Your task to perform on an android device: install app "Google Maps" Image 0: 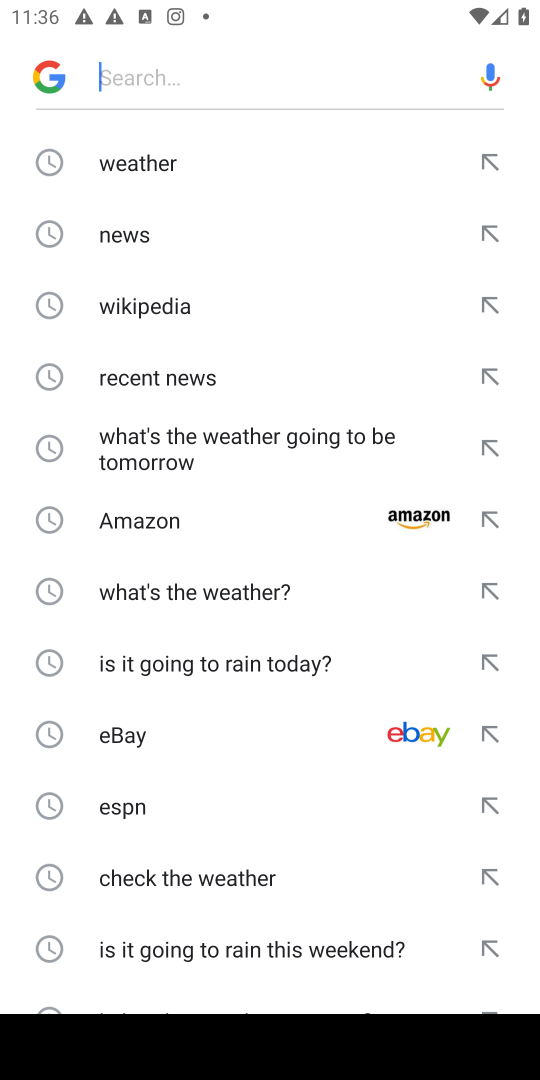
Step 0: press home button
Your task to perform on an android device: install app "Google Maps" Image 1: 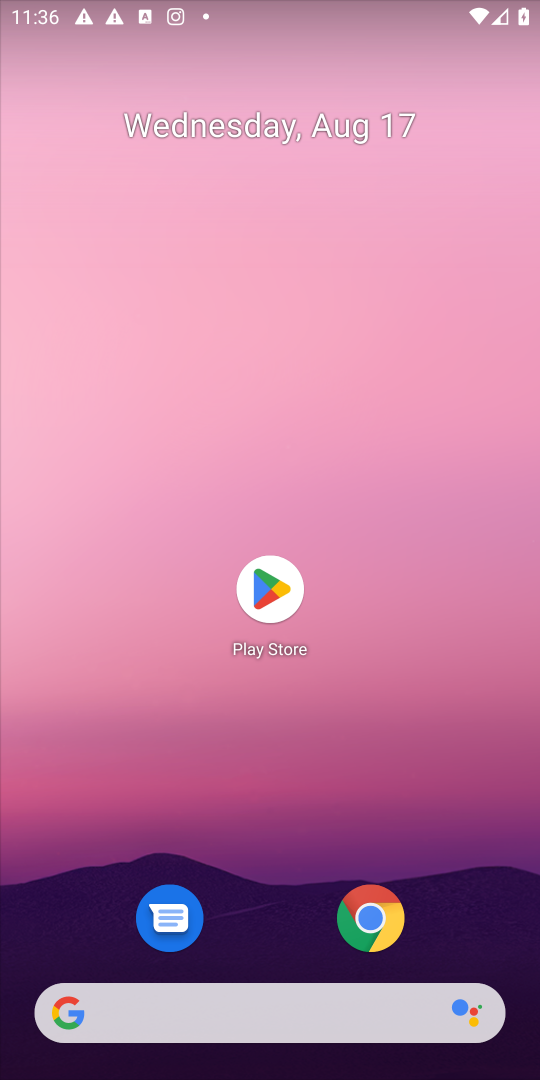
Step 1: click (260, 573)
Your task to perform on an android device: install app "Google Maps" Image 2: 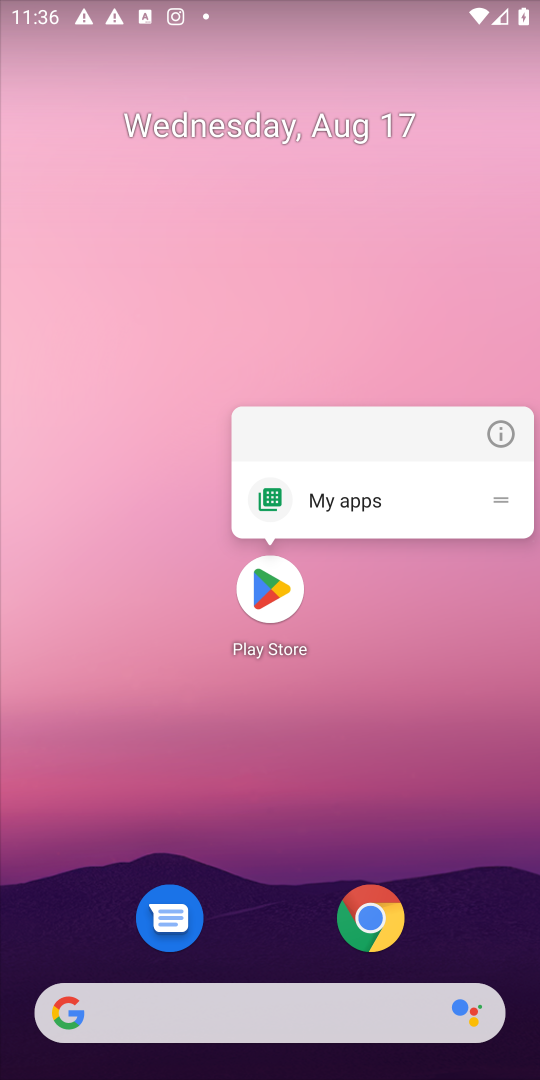
Step 2: click (255, 592)
Your task to perform on an android device: install app "Google Maps" Image 3: 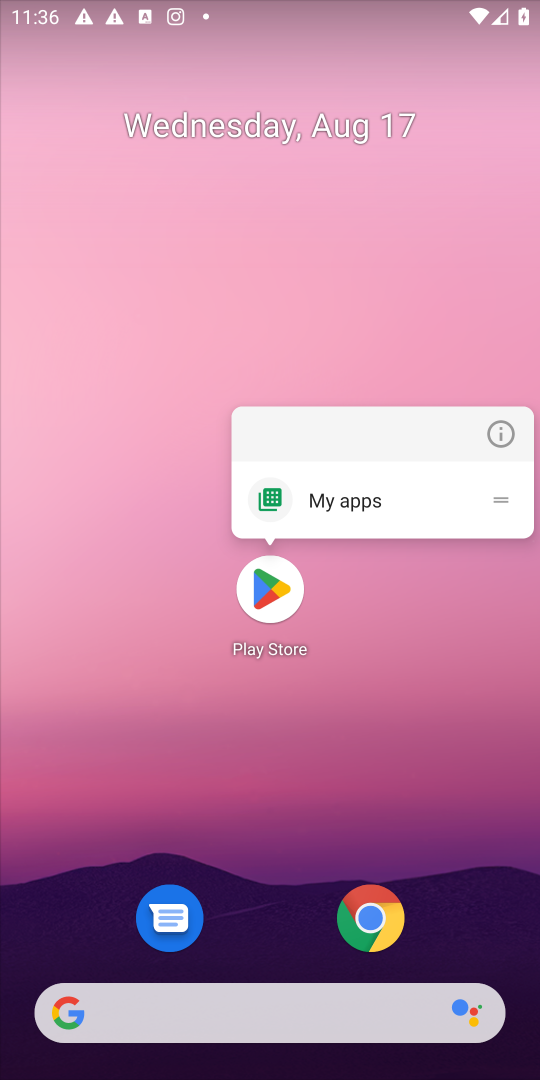
Step 3: click (281, 588)
Your task to perform on an android device: install app "Google Maps" Image 4: 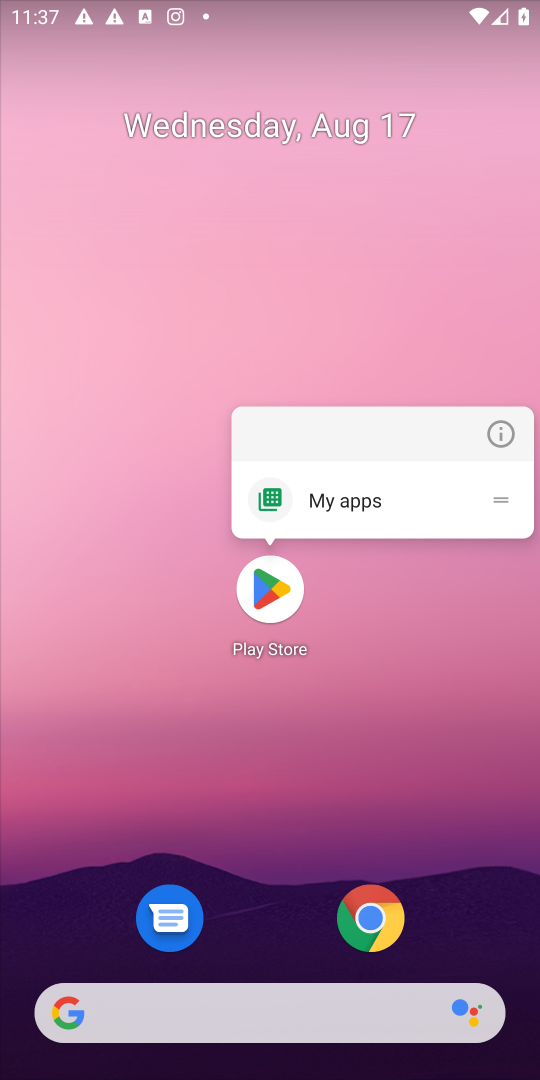
Step 4: click (238, 598)
Your task to perform on an android device: install app "Google Maps" Image 5: 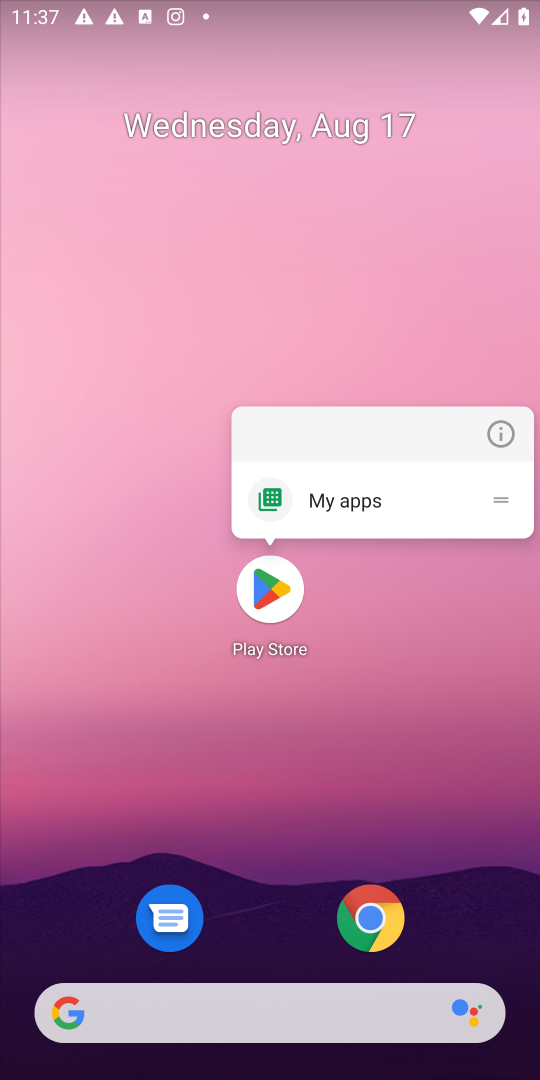
Step 5: click (256, 594)
Your task to perform on an android device: install app "Google Maps" Image 6: 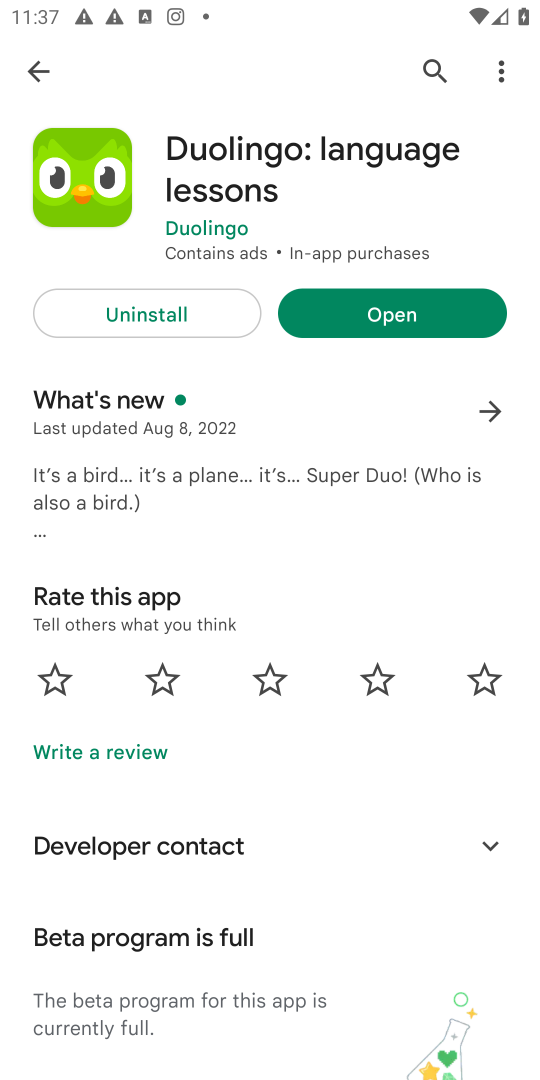
Step 6: click (445, 73)
Your task to perform on an android device: install app "Google Maps" Image 7: 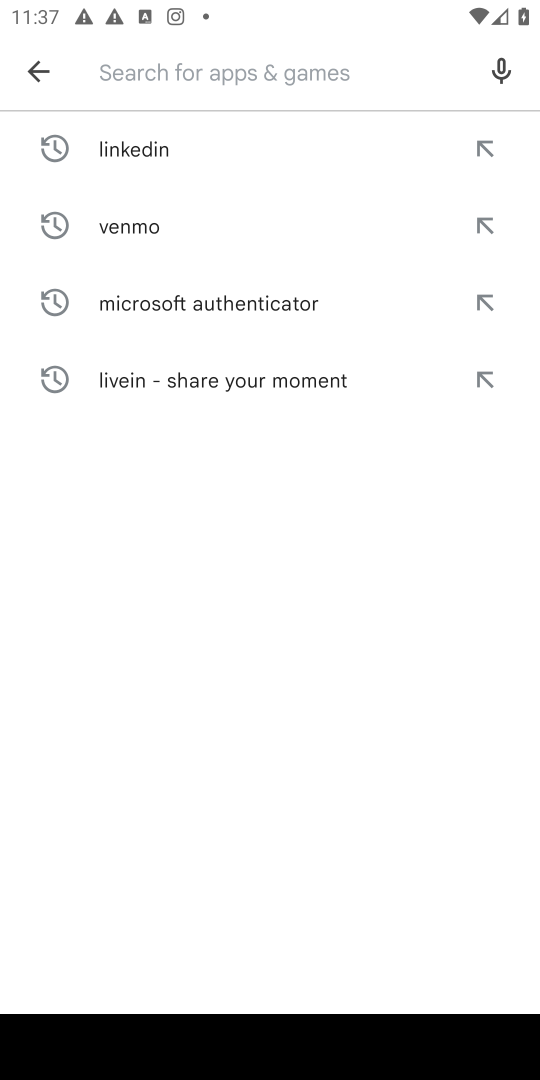
Step 7: type "Google Maps"
Your task to perform on an android device: install app "Google Maps" Image 8: 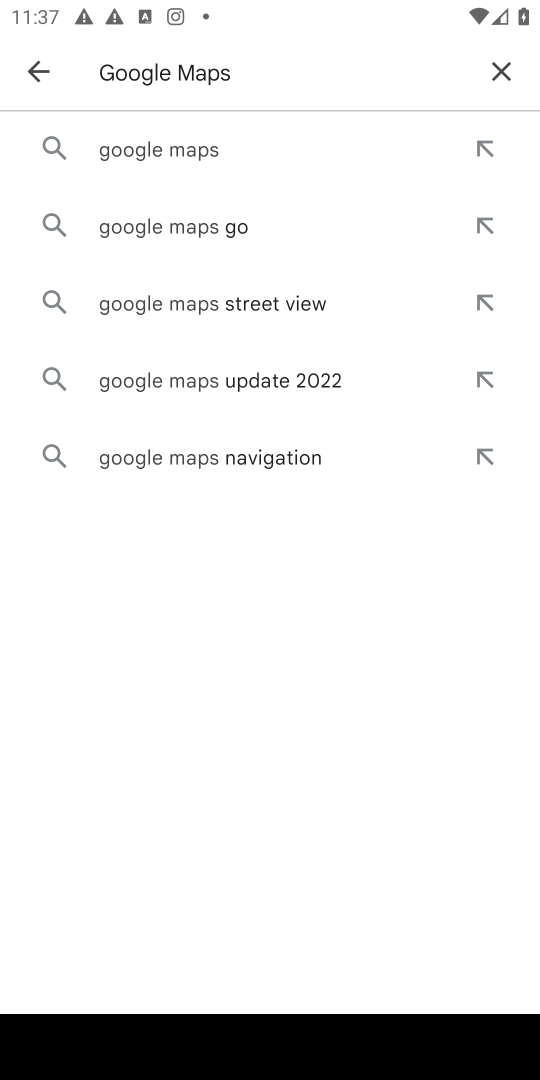
Step 8: click (176, 145)
Your task to perform on an android device: install app "Google Maps" Image 9: 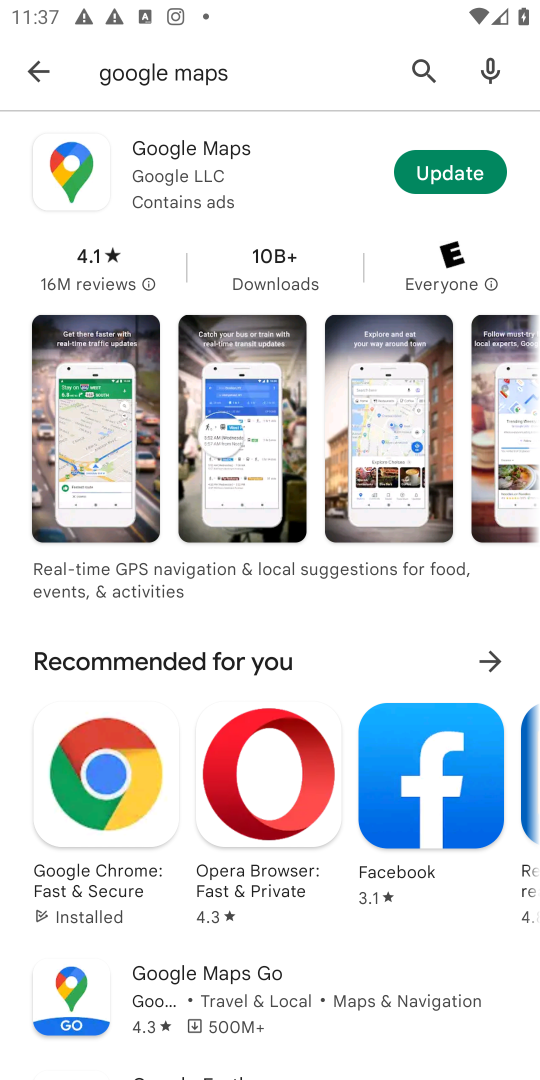
Step 9: click (170, 173)
Your task to perform on an android device: install app "Google Maps" Image 10: 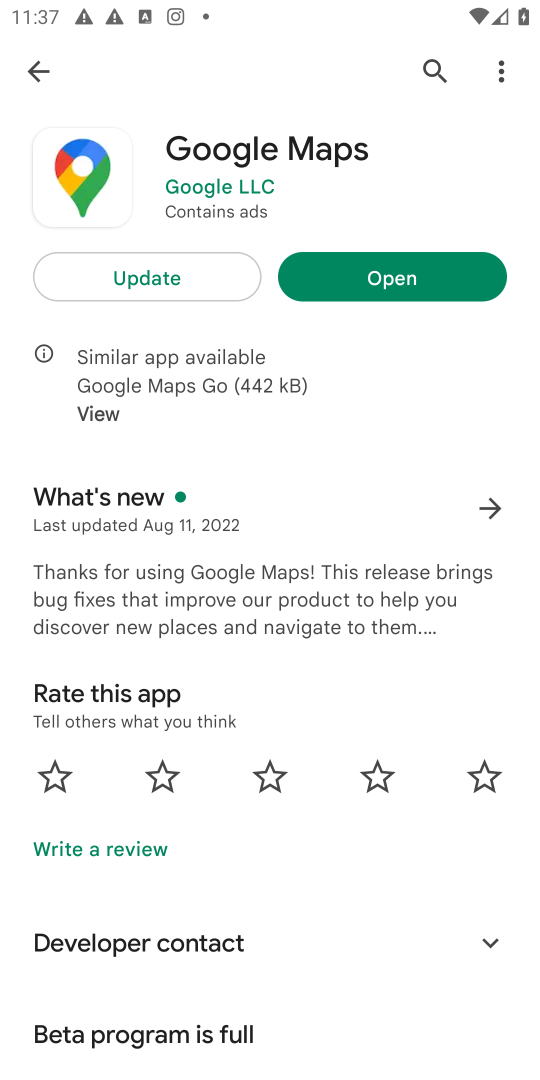
Step 10: task complete